Your task to perform on an android device: Go to eBay Image 0: 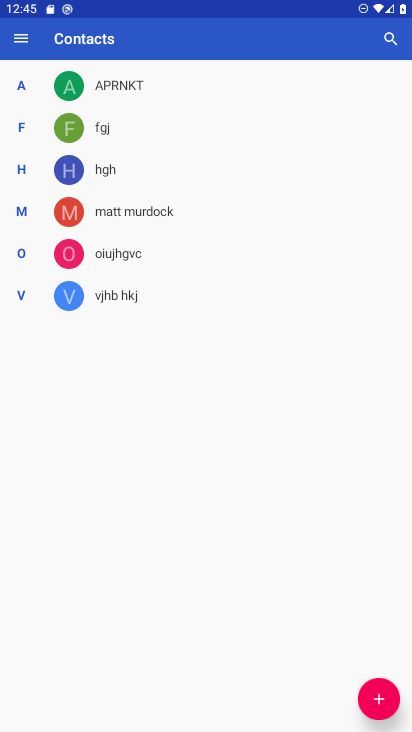
Step 0: press home button
Your task to perform on an android device: Go to eBay Image 1: 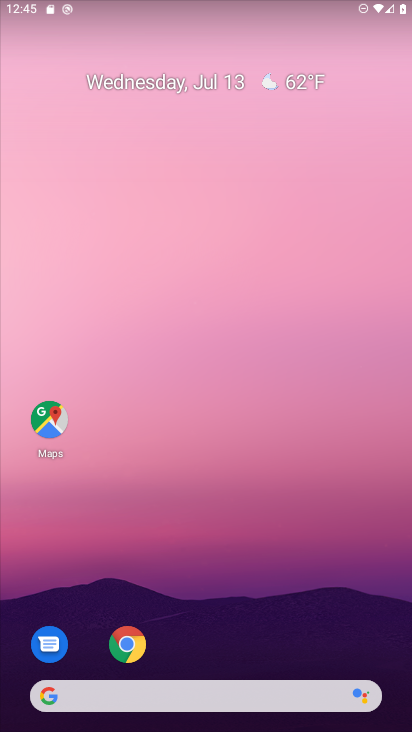
Step 1: click (221, 708)
Your task to perform on an android device: Go to eBay Image 2: 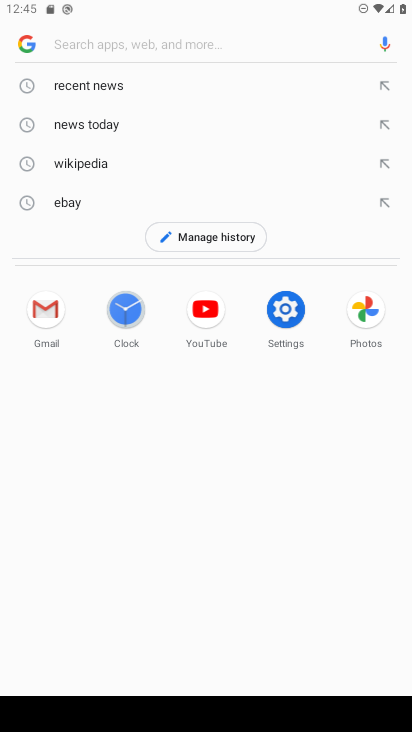
Step 2: click (69, 200)
Your task to perform on an android device: Go to eBay Image 3: 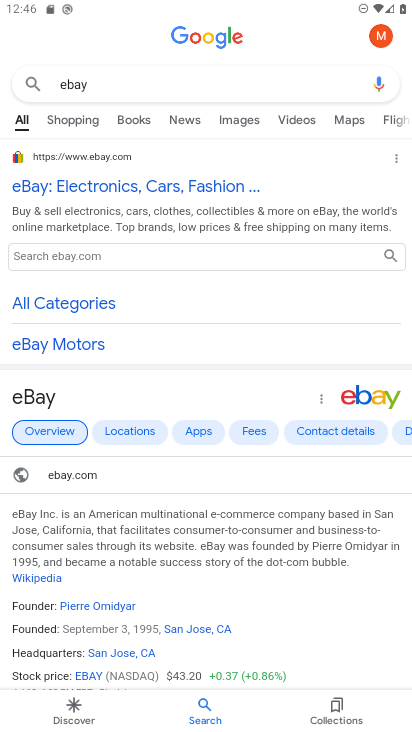
Step 3: click (119, 176)
Your task to perform on an android device: Go to eBay Image 4: 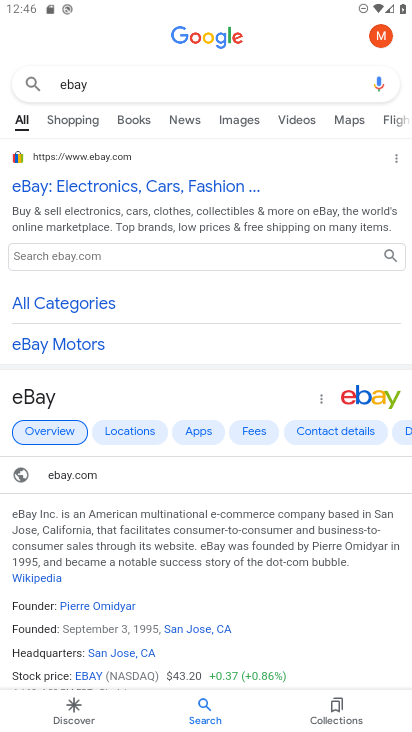
Step 4: click (105, 157)
Your task to perform on an android device: Go to eBay Image 5: 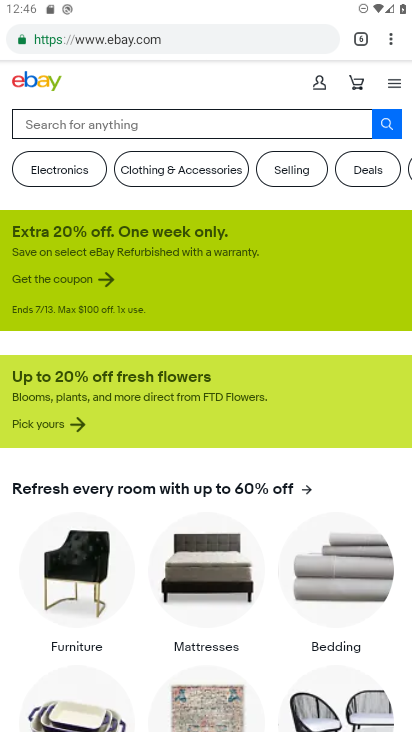
Step 5: task complete